Your task to perform on an android device: turn off wifi Image 0: 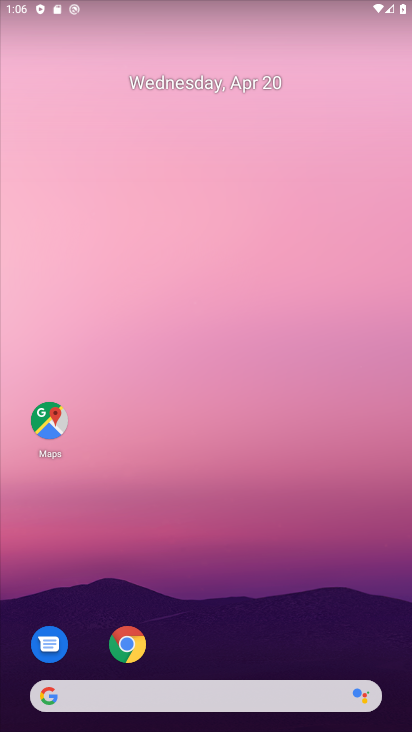
Step 0: drag from (300, 663) to (330, 72)
Your task to perform on an android device: turn off wifi Image 1: 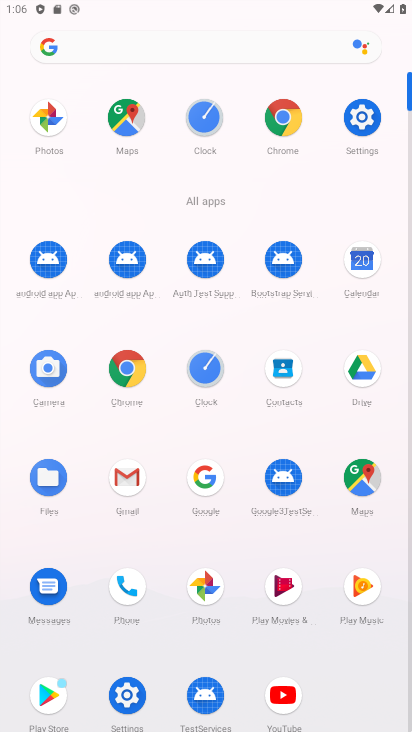
Step 1: drag from (169, 601) to (160, 224)
Your task to perform on an android device: turn off wifi Image 2: 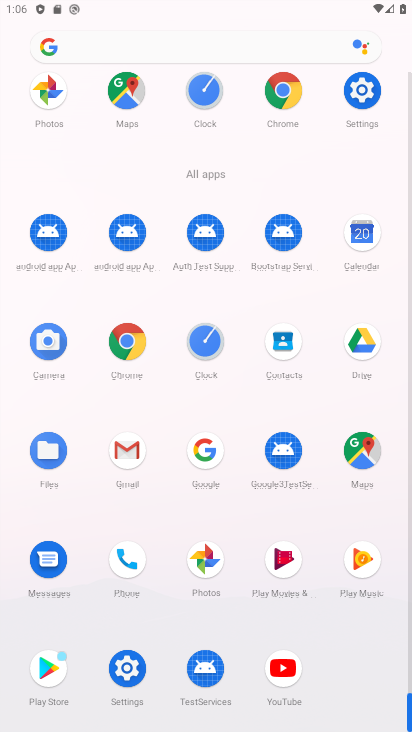
Step 2: click (123, 667)
Your task to perform on an android device: turn off wifi Image 3: 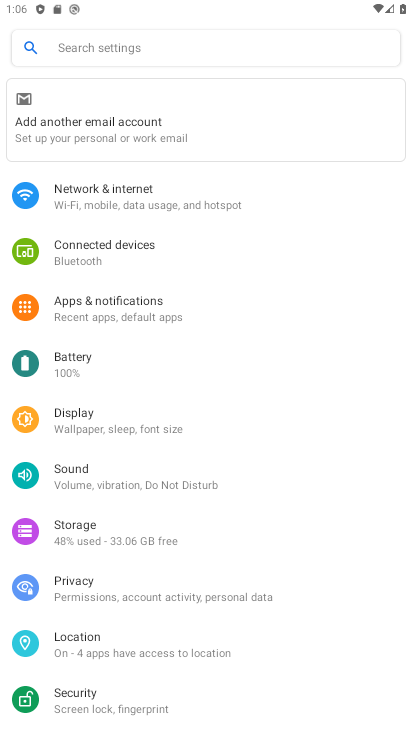
Step 3: click (138, 204)
Your task to perform on an android device: turn off wifi Image 4: 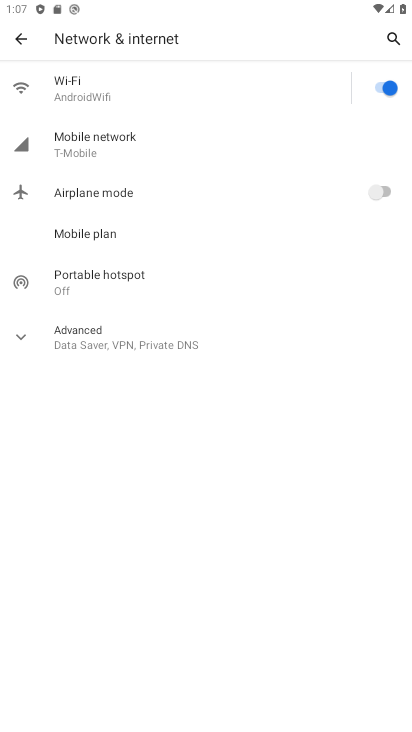
Step 4: click (386, 82)
Your task to perform on an android device: turn off wifi Image 5: 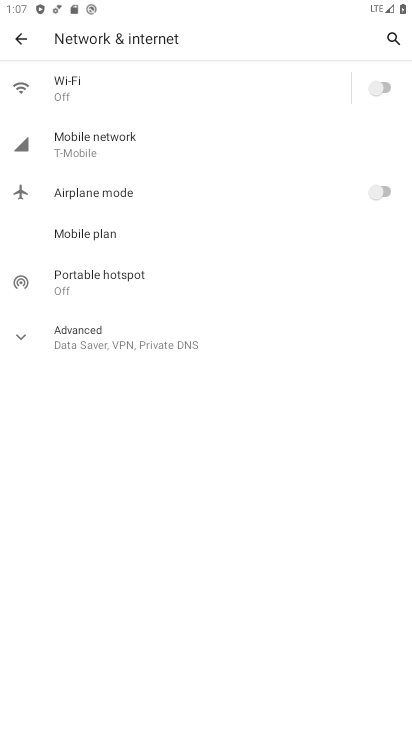
Step 5: task complete